Your task to perform on an android device: check data usage Image 0: 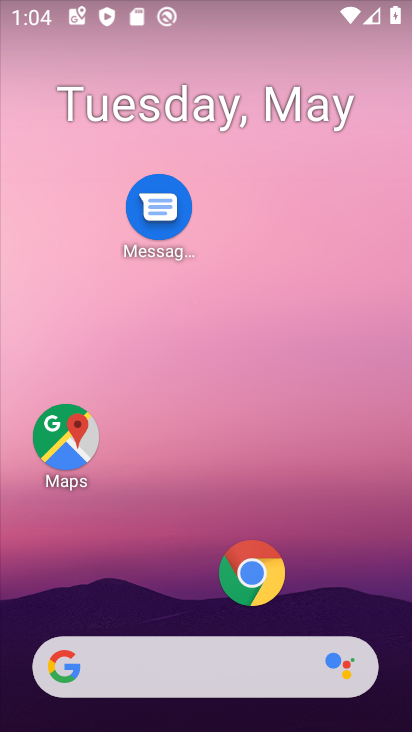
Step 0: drag from (175, 594) to (253, 212)
Your task to perform on an android device: check data usage Image 1: 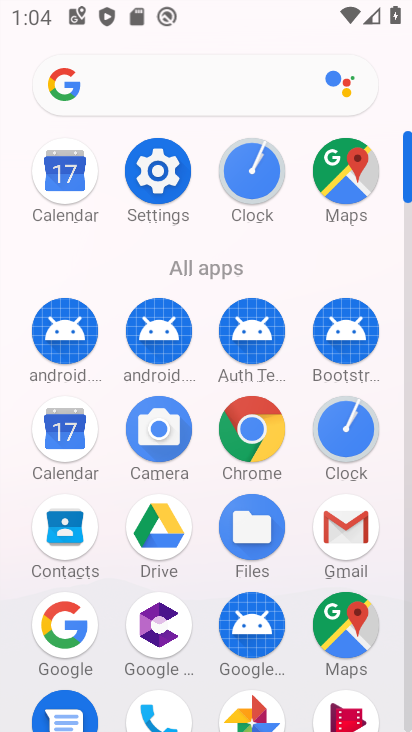
Step 1: click (154, 198)
Your task to perform on an android device: check data usage Image 2: 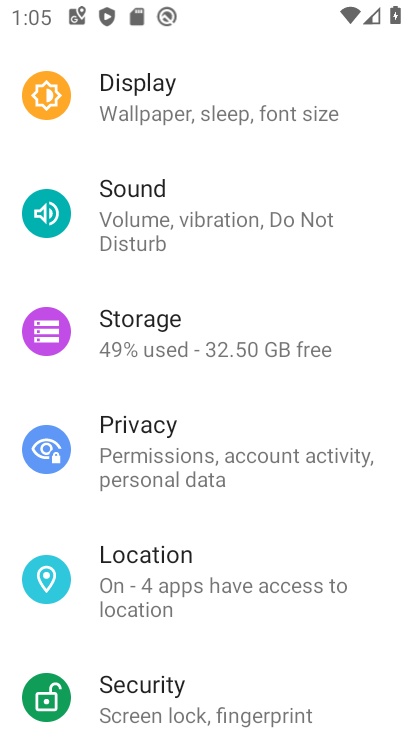
Step 2: drag from (235, 334) to (235, 592)
Your task to perform on an android device: check data usage Image 3: 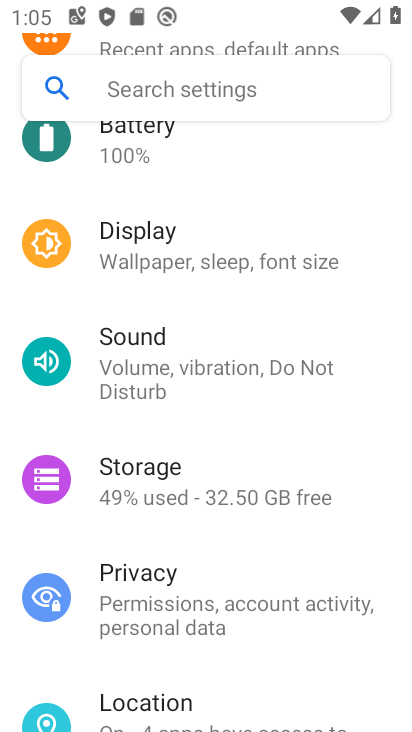
Step 3: drag from (255, 395) to (298, 731)
Your task to perform on an android device: check data usage Image 4: 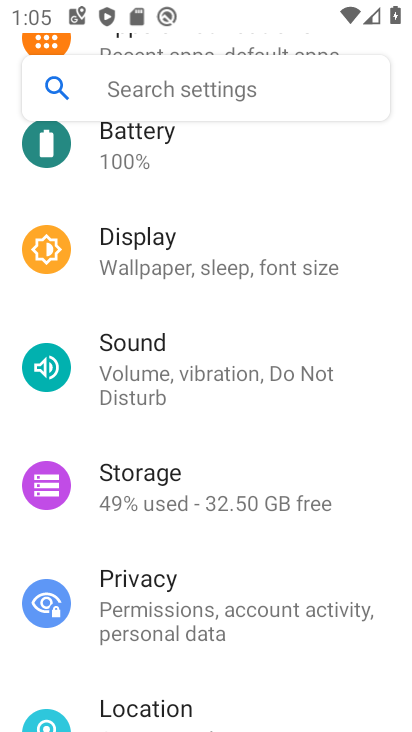
Step 4: drag from (245, 212) to (231, 714)
Your task to perform on an android device: check data usage Image 5: 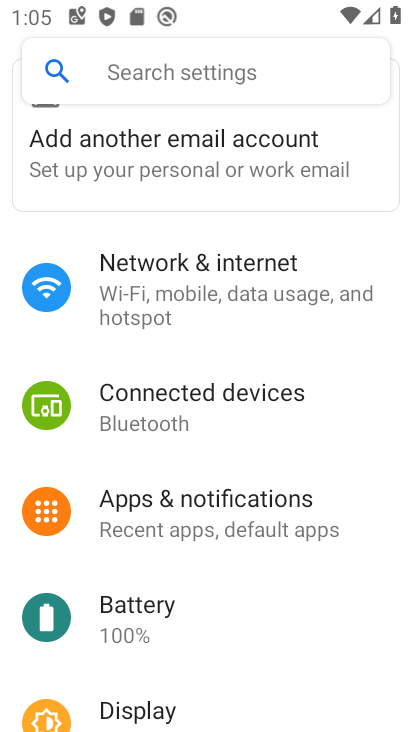
Step 5: click (194, 317)
Your task to perform on an android device: check data usage Image 6: 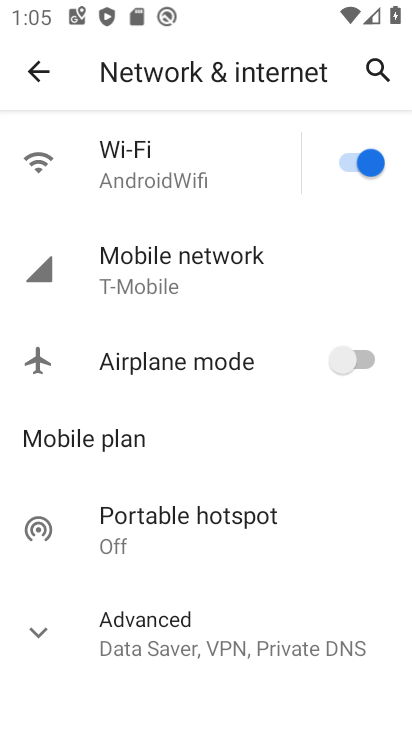
Step 6: click (201, 282)
Your task to perform on an android device: check data usage Image 7: 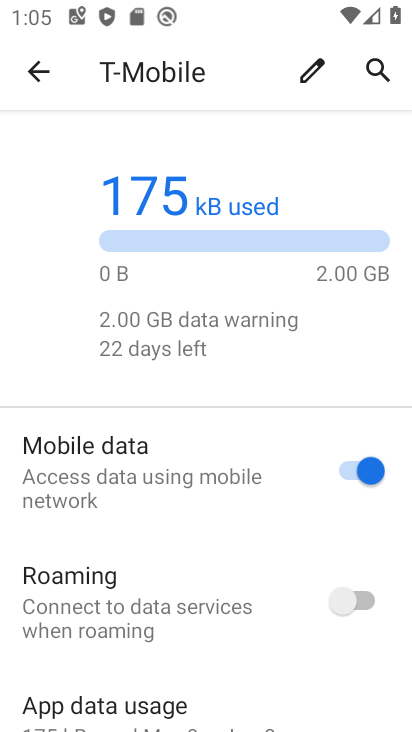
Step 7: drag from (178, 554) to (257, 204)
Your task to perform on an android device: check data usage Image 8: 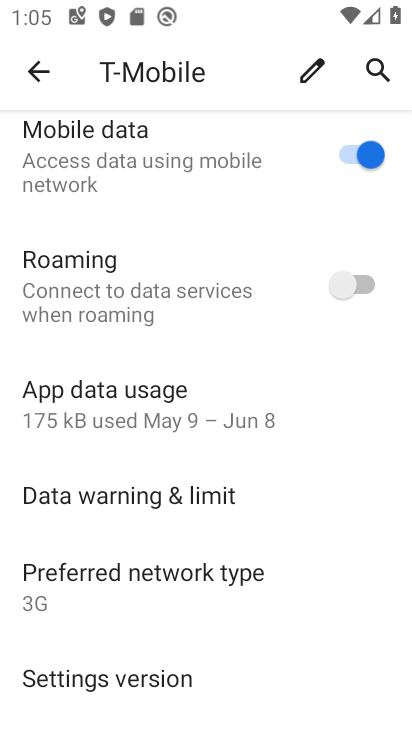
Step 8: click (169, 410)
Your task to perform on an android device: check data usage Image 9: 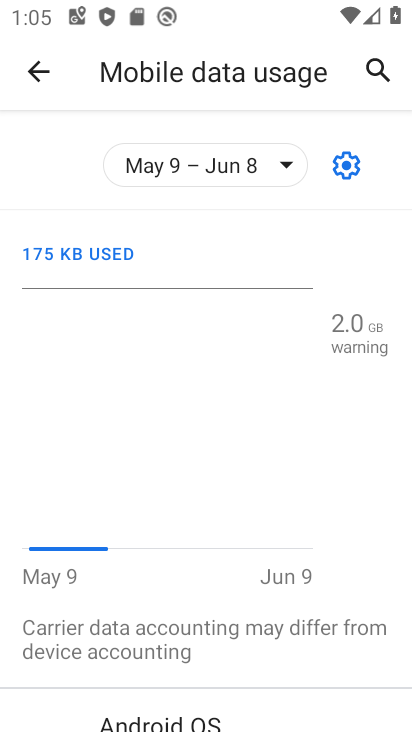
Step 9: task complete